Your task to perform on an android device: toggle priority inbox in the gmail app Image 0: 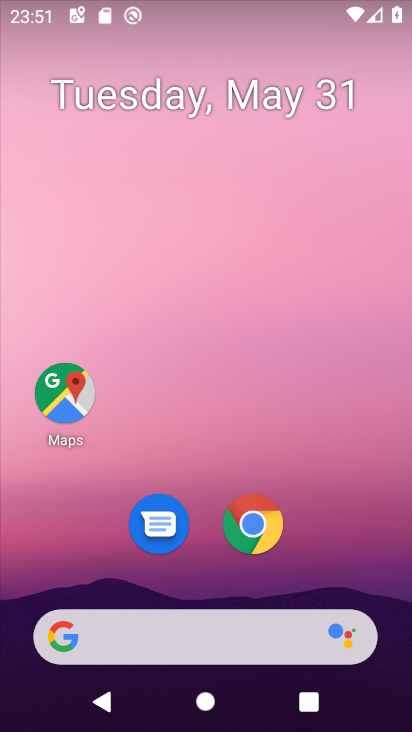
Step 0: drag from (240, 429) to (257, 33)
Your task to perform on an android device: toggle priority inbox in the gmail app Image 1: 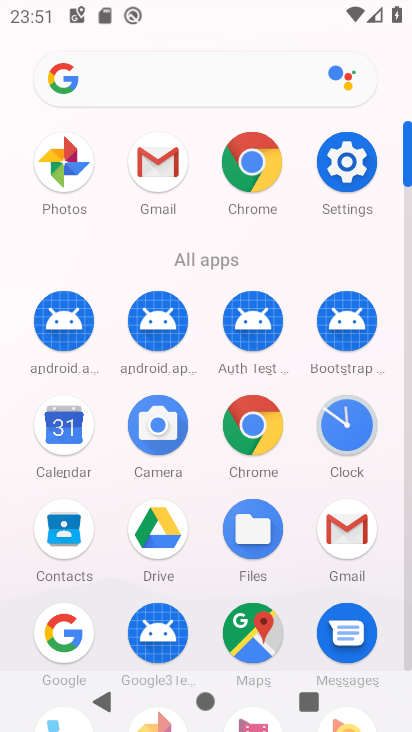
Step 1: click (168, 170)
Your task to perform on an android device: toggle priority inbox in the gmail app Image 2: 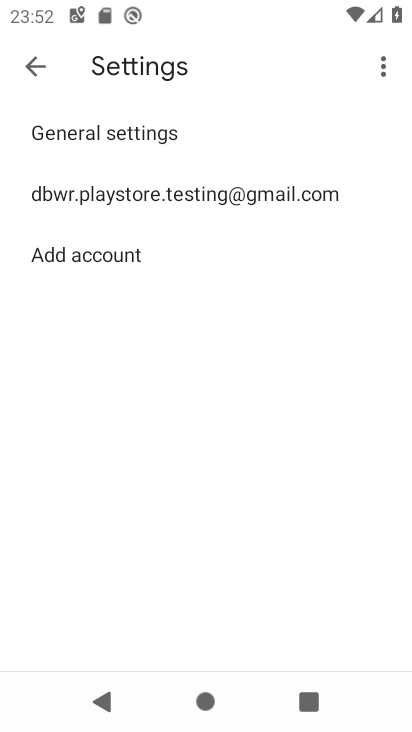
Step 2: click (174, 193)
Your task to perform on an android device: toggle priority inbox in the gmail app Image 3: 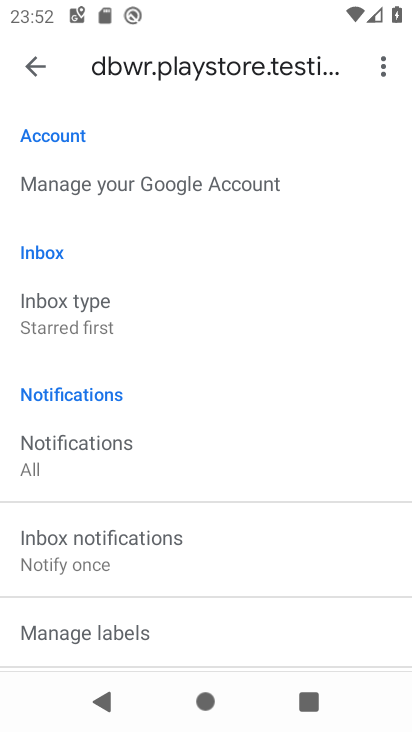
Step 3: click (80, 307)
Your task to perform on an android device: toggle priority inbox in the gmail app Image 4: 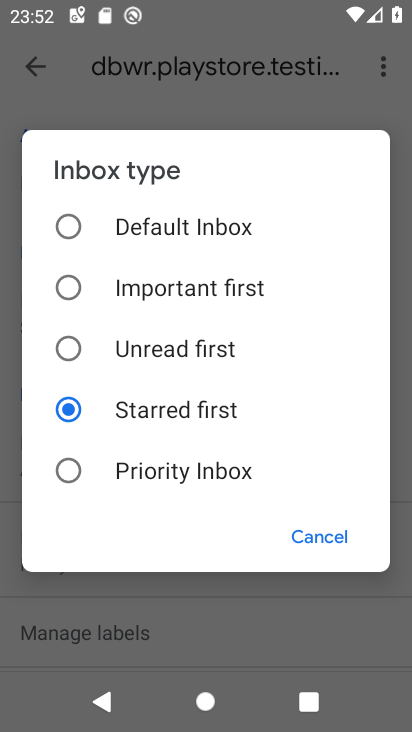
Step 4: click (68, 473)
Your task to perform on an android device: toggle priority inbox in the gmail app Image 5: 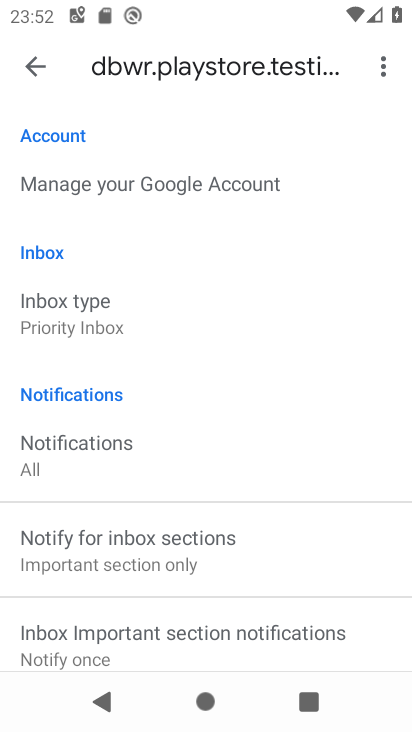
Step 5: task complete